Your task to perform on an android device: read, delete, or share a saved page in the chrome app Image 0: 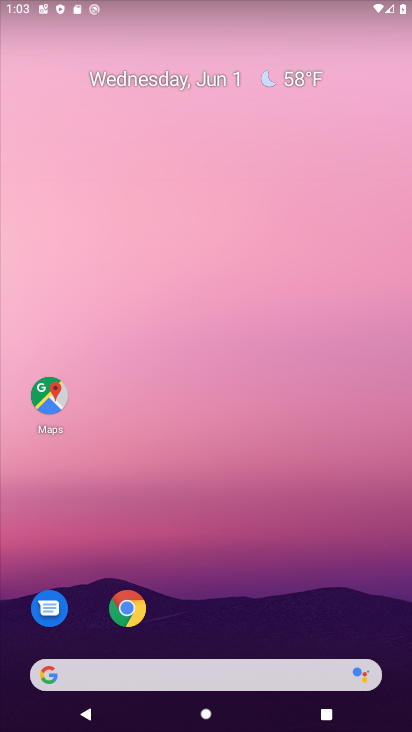
Step 0: click (123, 605)
Your task to perform on an android device: read, delete, or share a saved page in the chrome app Image 1: 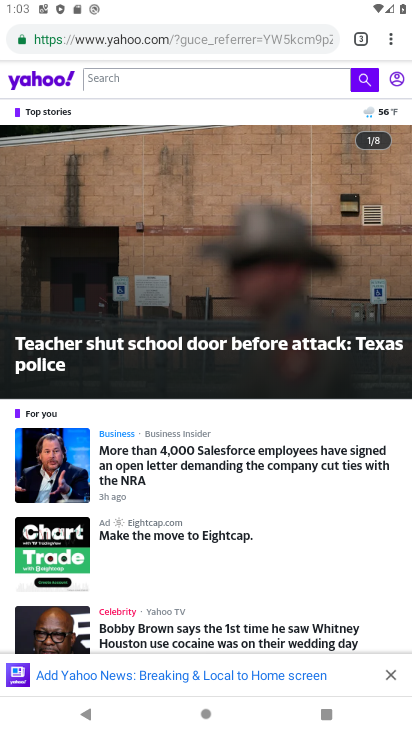
Step 1: click (388, 28)
Your task to perform on an android device: read, delete, or share a saved page in the chrome app Image 2: 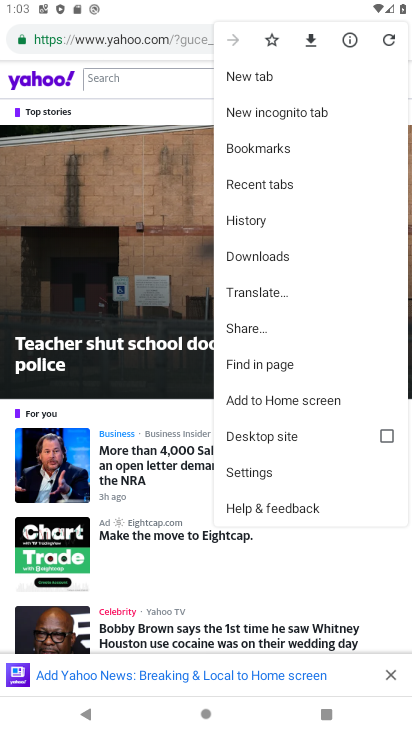
Step 2: click (295, 467)
Your task to perform on an android device: read, delete, or share a saved page in the chrome app Image 3: 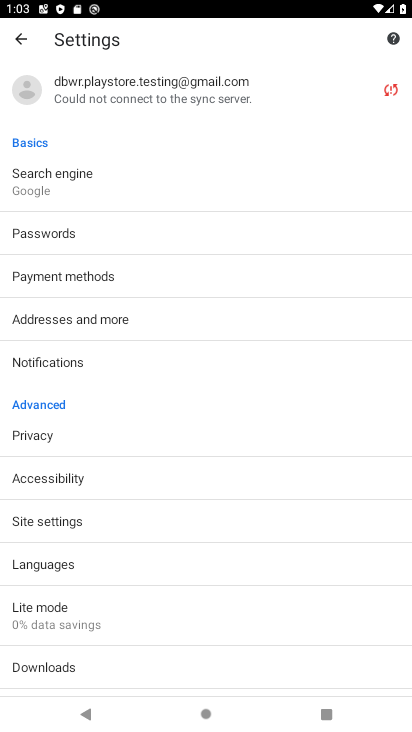
Step 3: drag from (192, 547) to (280, 163)
Your task to perform on an android device: read, delete, or share a saved page in the chrome app Image 4: 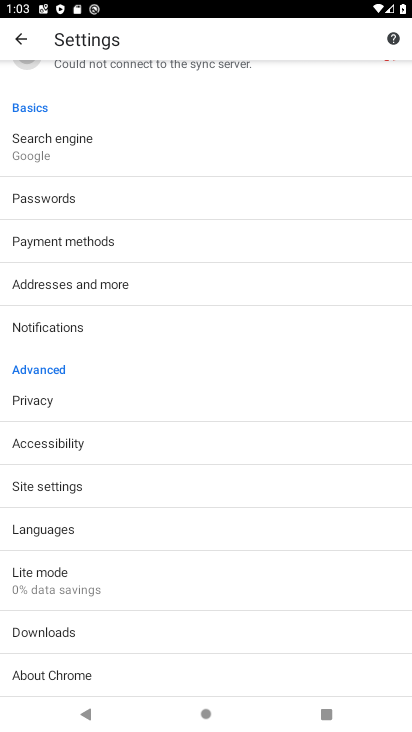
Step 4: click (81, 674)
Your task to perform on an android device: read, delete, or share a saved page in the chrome app Image 5: 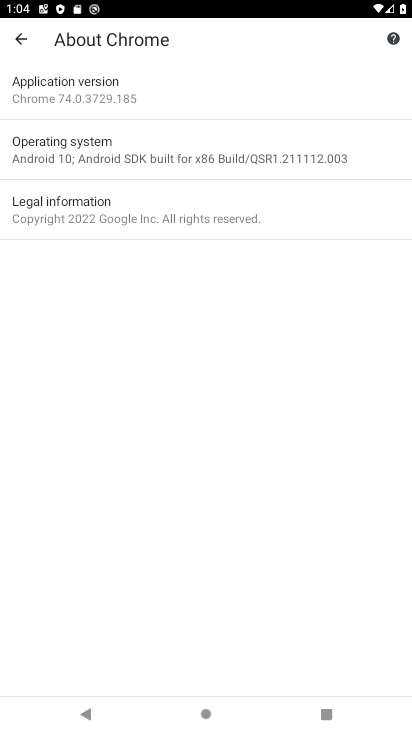
Step 5: drag from (193, 165) to (369, 615)
Your task to perform on an android device: read, delete, or share a saved page in the chrome app Image 6: 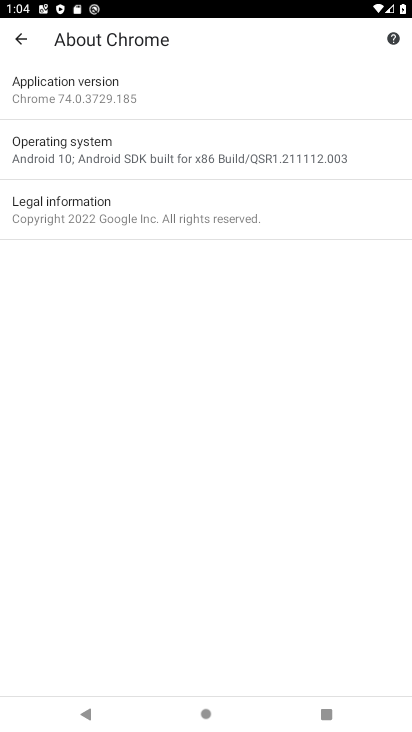
Step 6: press back button
Your task to perform on an android device: read, delete, or share a saved page in the chrome app Image 7: 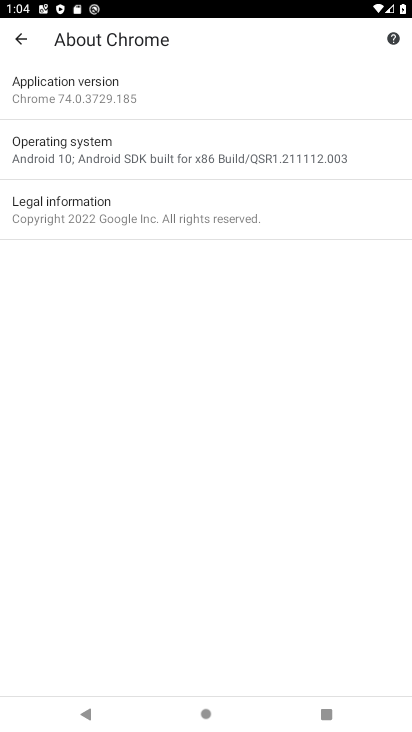
Step 7: drag from (369, 615) to (409, 335)
Your task to perform on an android device: read, delete, or share a saved page in the chrome app Image 8: 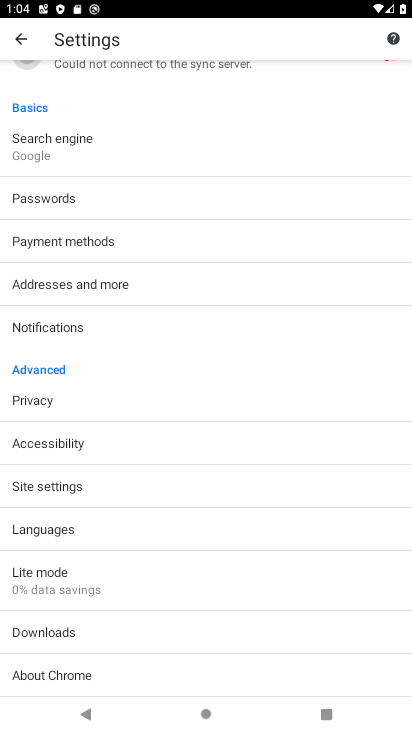
Step 8: click (148, 401)
Your task to perform on an android device: read, delete, or share a saved page in the chrome app Image 9: 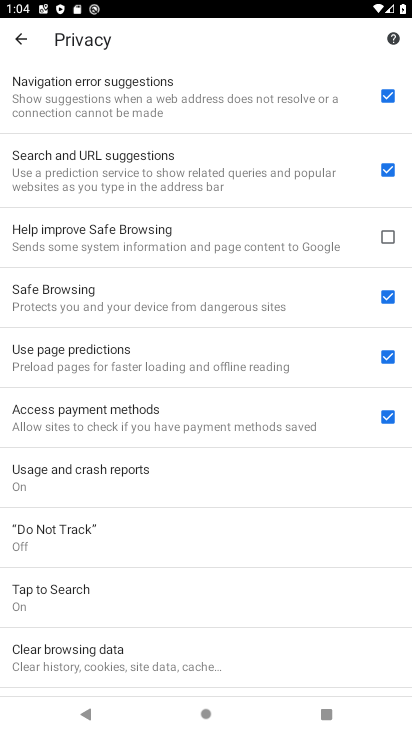
Step 9: drag from (198, 537) to (197, 139)
Your task to perform on an android device: read, delete, or share a saved page in the chrome app Image 10: 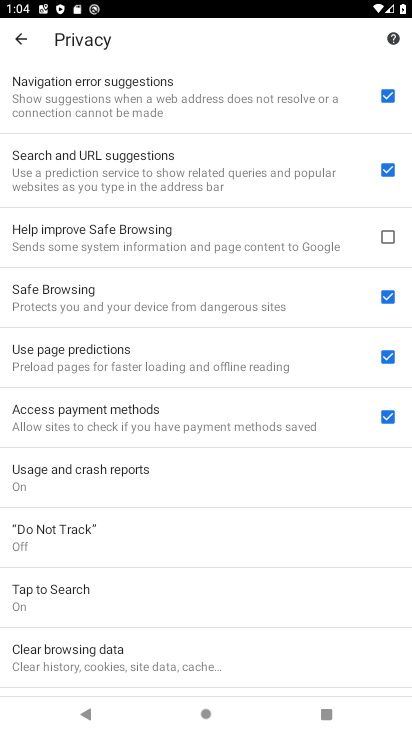
Step 10: press back button
Your task to perform on an android device: read, delete, or share a saved page in the chrome app Image 11: 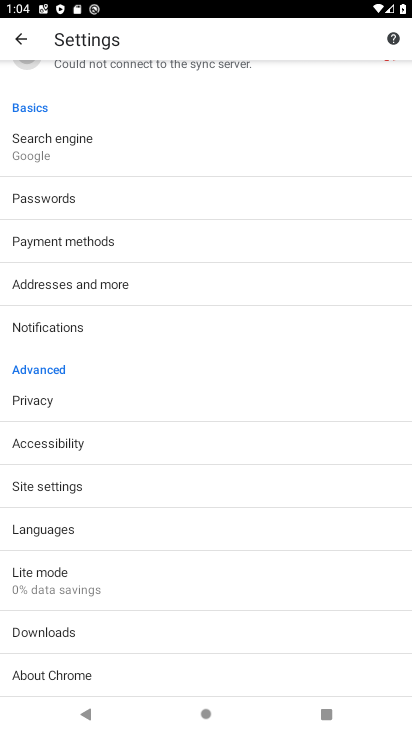
Step 11: click (255, 434)
Your task to perform on an android device: read, delete, or share a saved page in the chrome app Image 12: 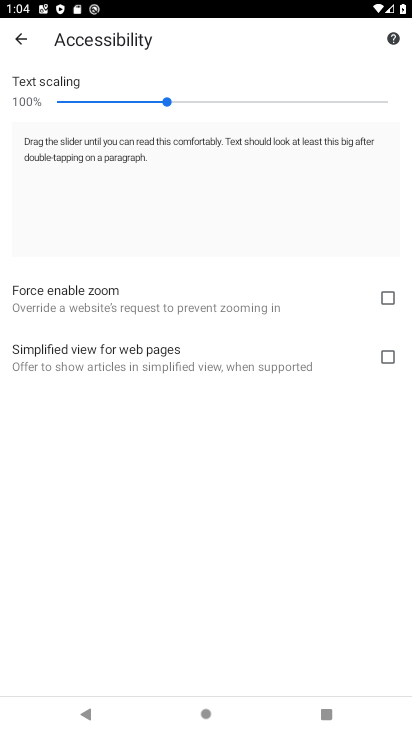
Step 12: press back button
Your task to perform on an android device: read, delete, or share a saved page in the chrome app Image 13: 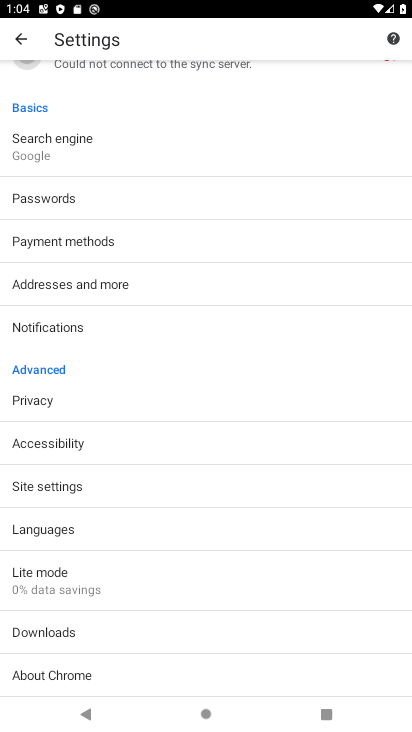
Step 13: click (101, 486)
Your task to perform on an android device: read, delete, or share a saved page in the chrome app Image 14: 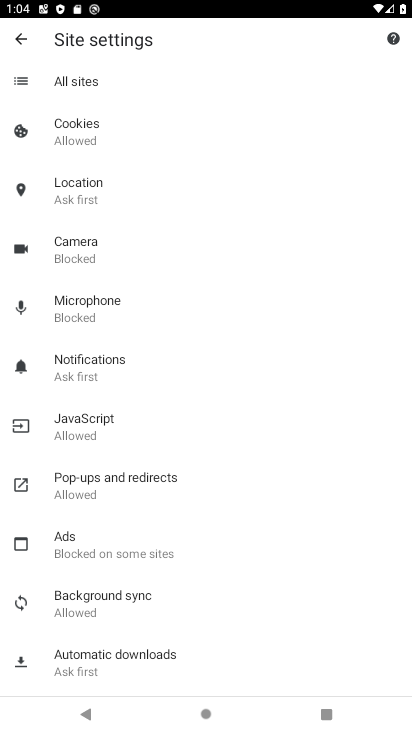
Step 14: task complete